Your task to perform on an android device: Open settings Image 0: 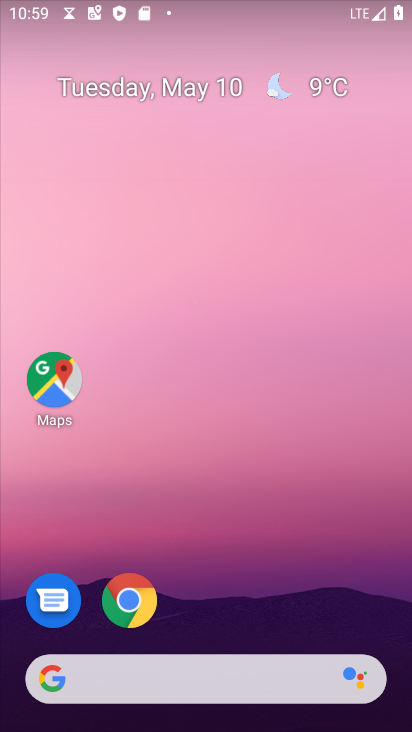
Step 0: drag from (254, 608) to (129, 136)
Your task to perform on an android device: Open settings Image 1: 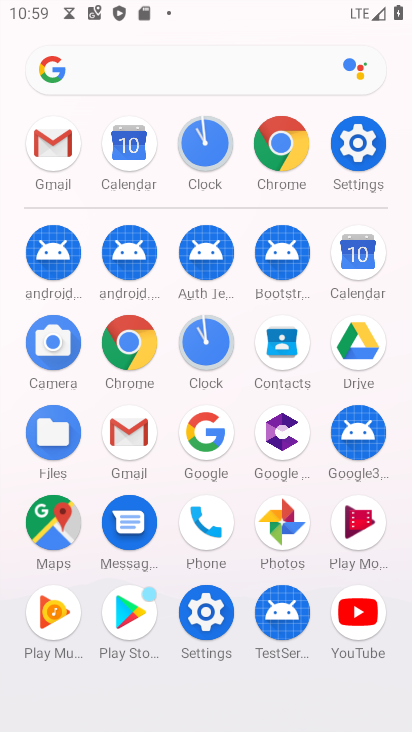
Step 1: click (351, 137)
Your task to perform on an android device: Open settings Image 2: 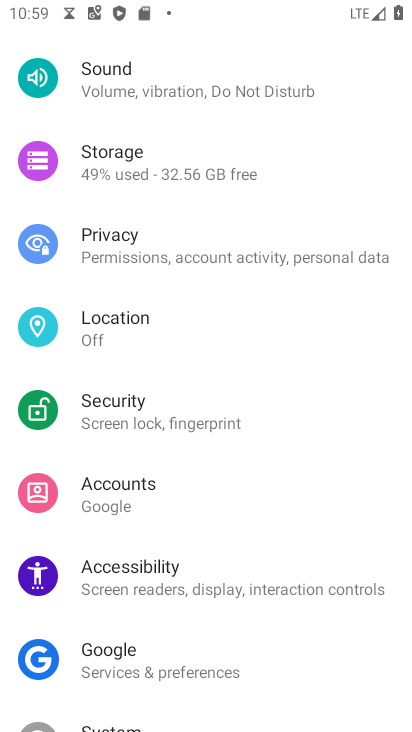
Step 2: task complete